Your task to perform on an android device: show emergency info Image 0: 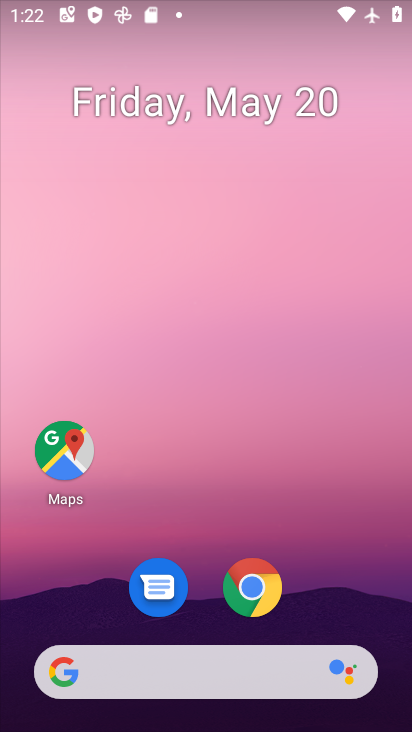
Step 0: drag from (311, 492) to (226, 147)
Your task to perform on an android device: show emergency info Image 1: 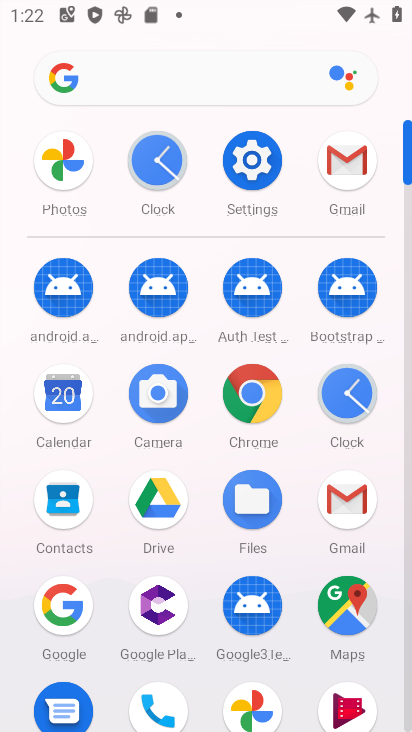
Step 1: click (254, 160)
Your task to perform on an android device: show emergency info Image 2: 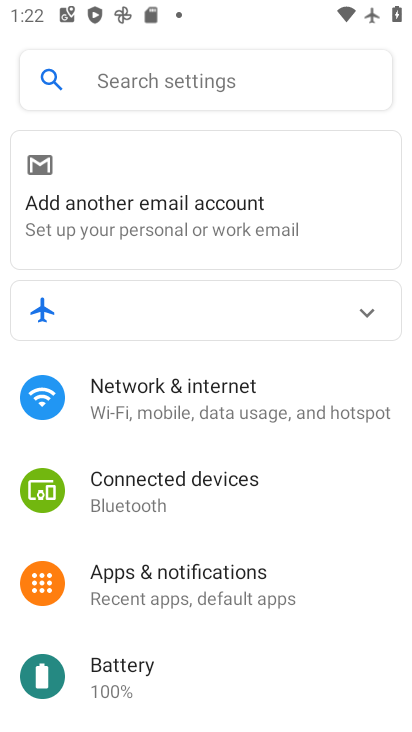
Step 2: drag from (292, 606) to (279, 299)
Your task to perform on an android device: show emergency info Image 3: 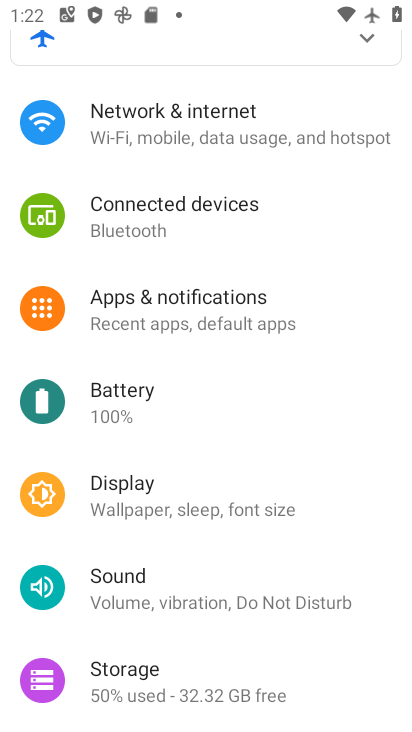
Step 3: drag from (279, 593) to (276, 273)
Your task to perform on an android device: show emergency info Image 4: 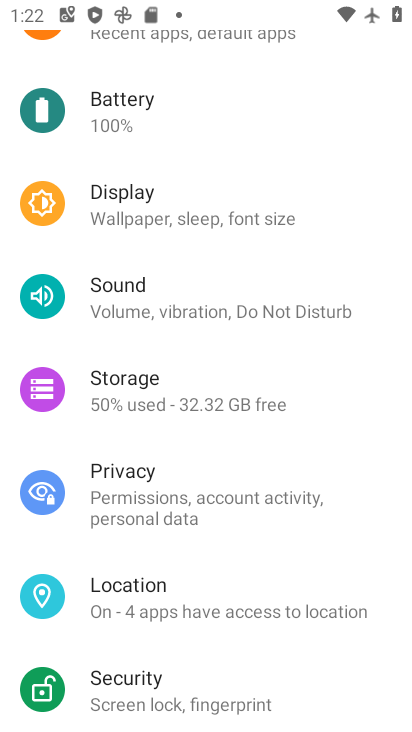
Step 4: drag from (225, 211) to (205, 17)
Your task to perform on an android device: show emergency info Image 5: 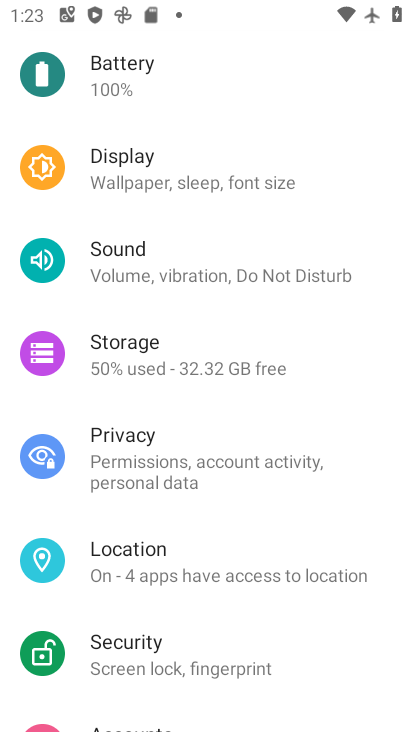
Step 5: drag from (264, 594) to (189, 157)
Your task to perform on an android device: show emergency info Image 6: 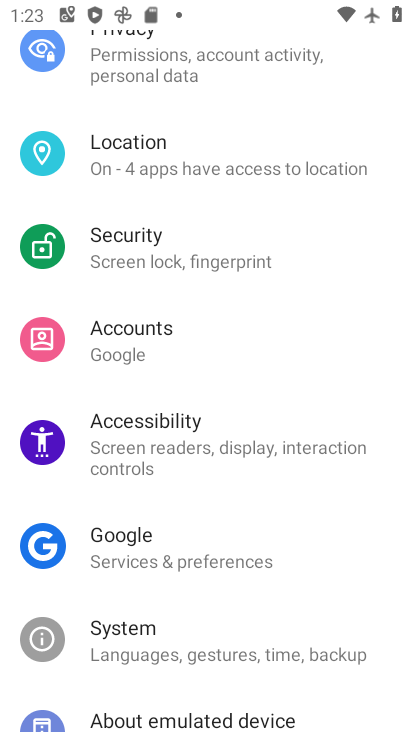
Step 6: drag from (204, 604) to (207, 335)
Your task to perform on an android device: show emergency info Image 7: 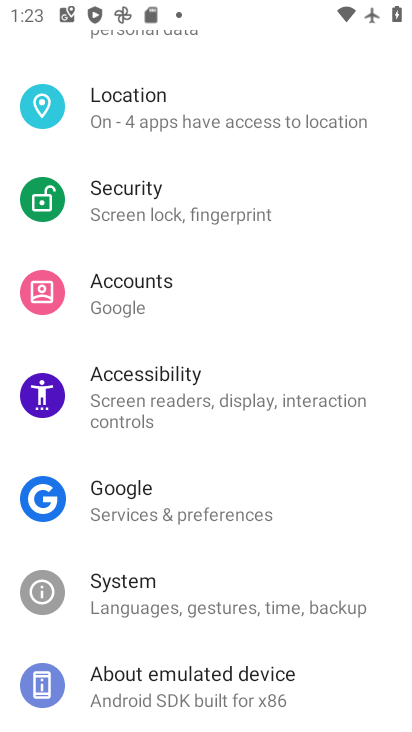
Step 7: click (167, 672)
Your task to perform on an android device: show emergency info Image 8: 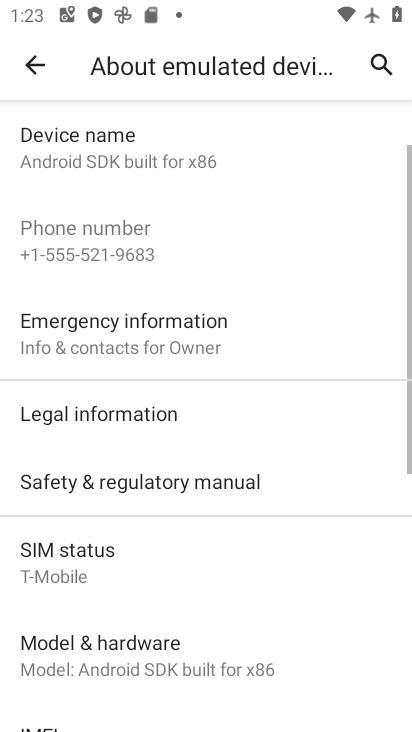
Step 8: click (132, 313)
Your task to perform on an android device: show emergency info Image 9: 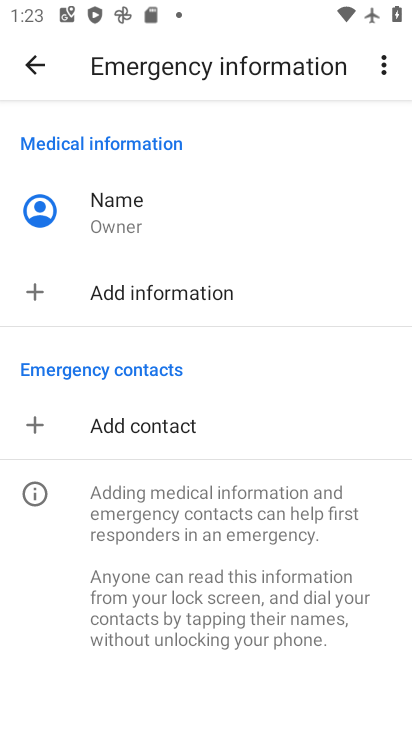
Step 9: drag from (239, 416) to (209, 194)
Your task to perform on an android device: show emergency info Image 10: 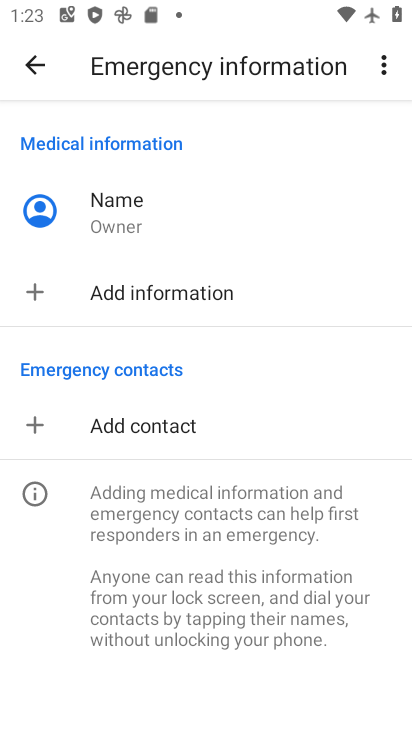
Step 10: drag from (175, 208) to (85, 578)
Your task to perform on an android device: show emergency info Image 11: 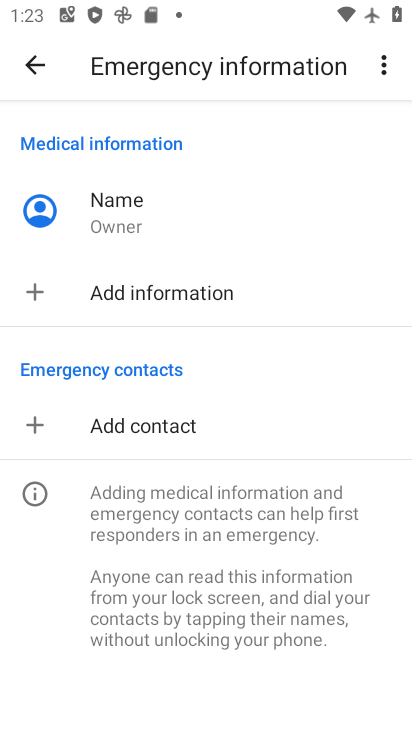
Step 11: click (35, 77)
Your task to perform on an android device: show emergency info Image 12: 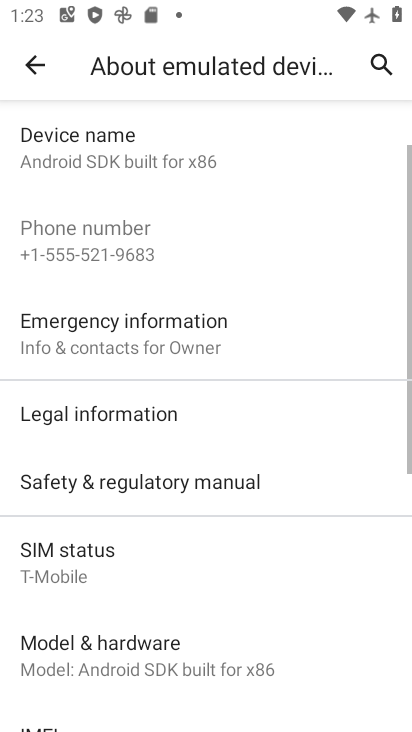
Step 12: task complete